Your task to perform on an android device: open sync settings in chrome Image 0: 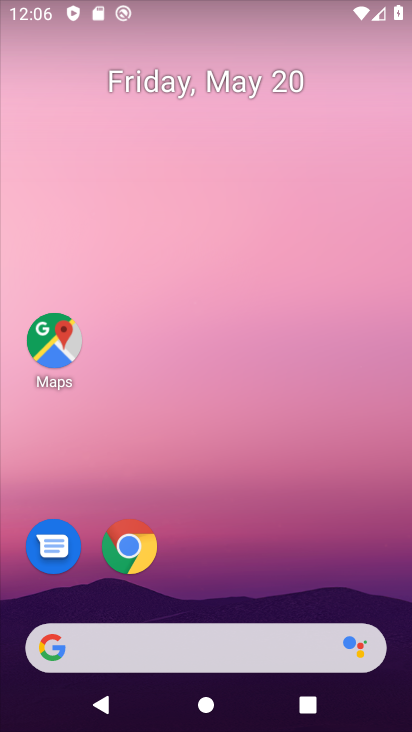
Step 0: click (142, 541)
Your task to perform on an android device: open sync settings in chrome Image 1: 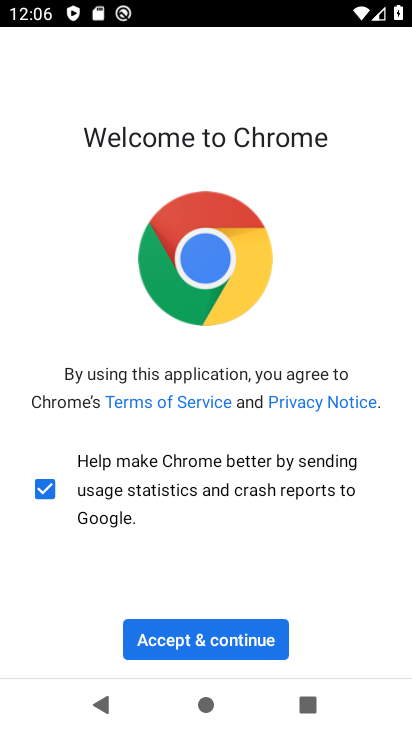
Step 1: click (266, 637)
Your task to perform on an android device: open sync settings in chrome Image 2: 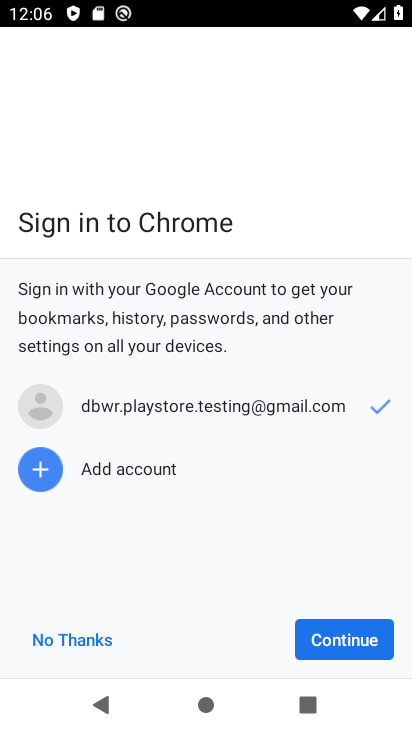
Step 2: click (331, 636)
Your task to perform on an android device: open sync settings in chrome Image 3: 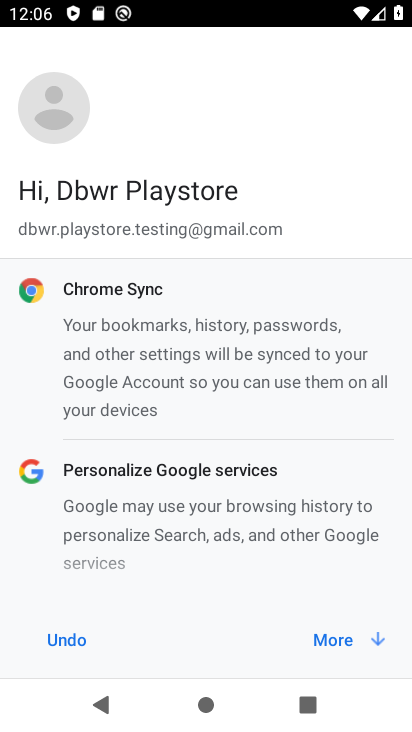
Step 3: click (331, 634)
Your task to perform on an android device: open sync settings in chrome Image 4: 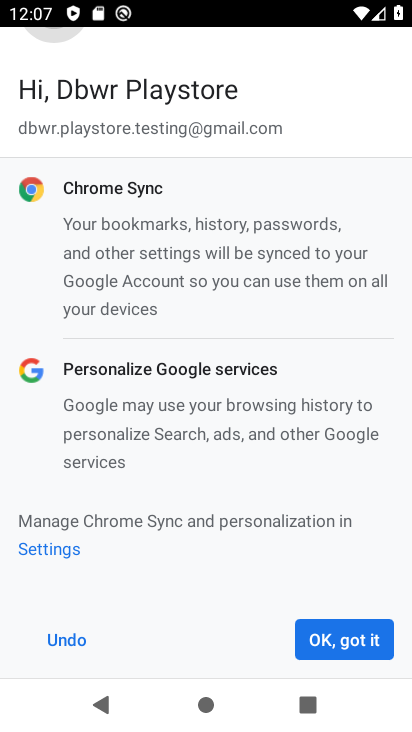
Step 4: click (331, 634)
Your task to perform on an android device: open sync settings in chrome Image 5: 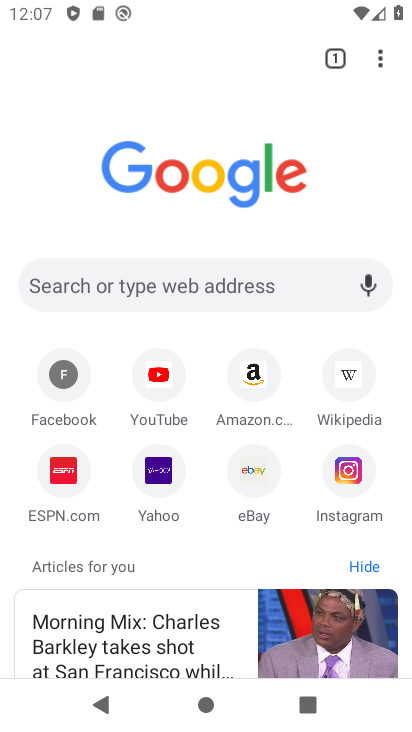
Step 5: click (375, 64)
Your task to perform on an android device: open sync settings in chrome Image 6: 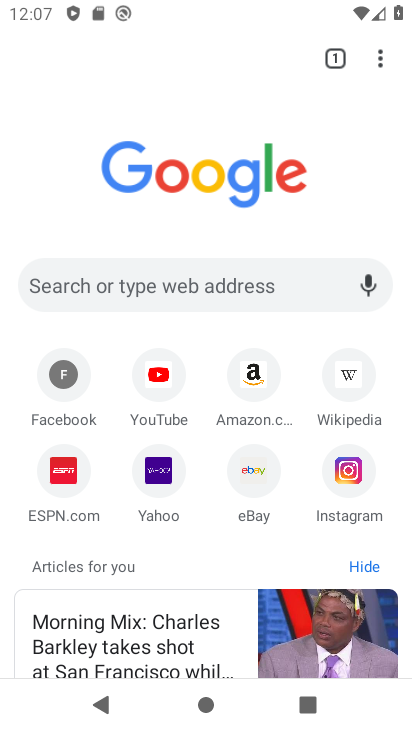
Step 6: click (379, 60)
Your task to perform on an android device: open sync settings in chrome Image 7: 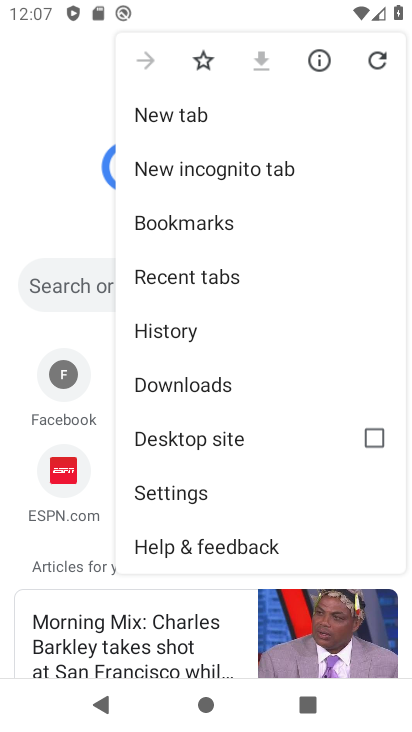
Step 7: click (200, 485)
Your task to perform on an android device: open sync settings in chrome Image 8: 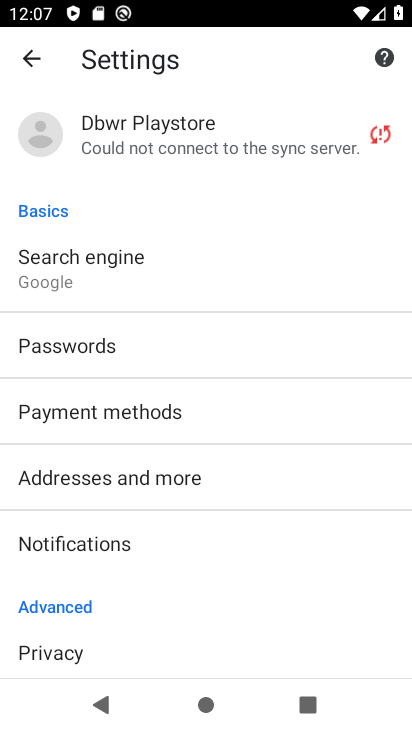
Step 8: drag from (259, 447) to (279, 527)
Your task to perform on an android device: open sync settings in chrome Image 9: 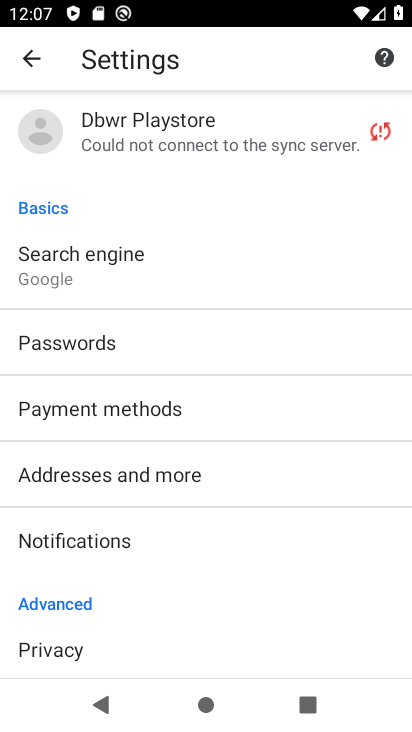
Step 9: click (209, 130)
Your task to perform on an android device: open sync settings in chrome Image 10: 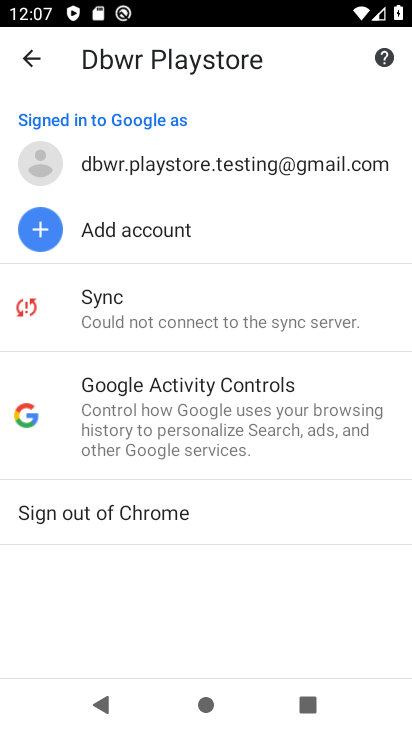
Step 10: click (150, 302)
Your task to perform on an android device: open sync settings in chrome Image 11: 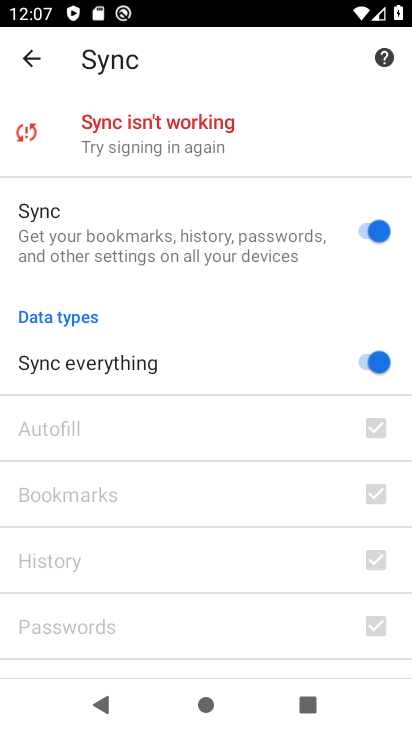
Step 11: task complete